Your task to perform on an android device: search for starred emails in the gmail app Image 0: 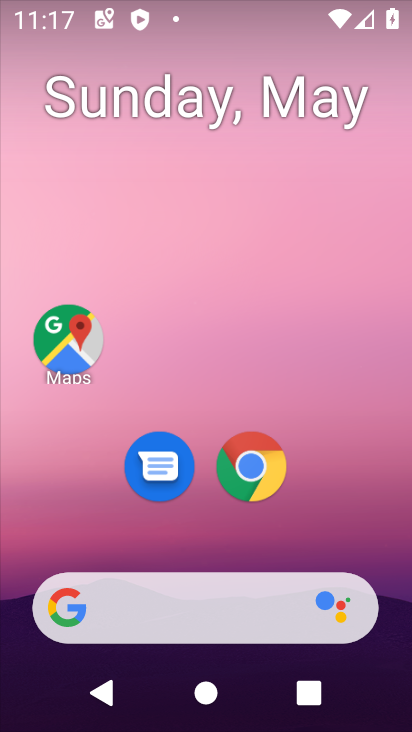
Step 0: drag from (390, 586) to (236, 39)
Your task to perform on an android device: search for starred emails in the gmail app Image 1: 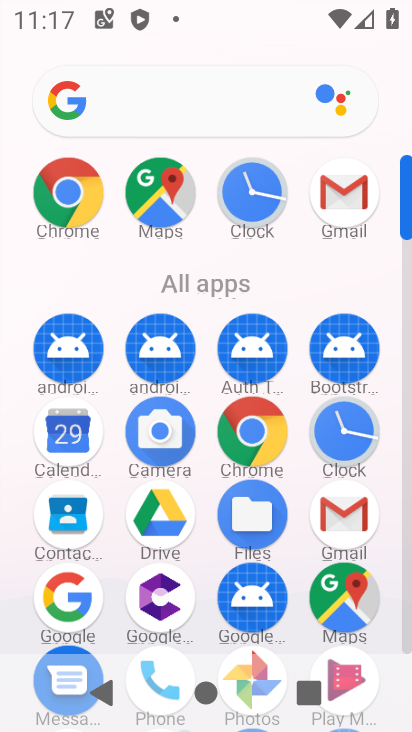
Step 1: click (350, 523)
Your task to perform on an android device: search for starred emails in the gmail app Image 2: 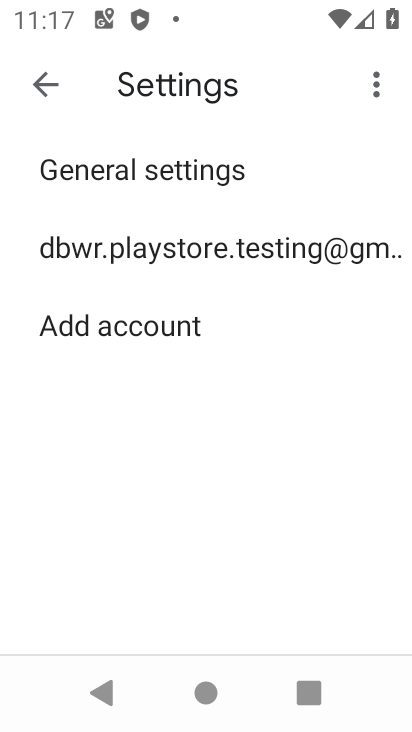
Step 2: press back button
Your task to perform on an android device: search for starred emails in the gmail app Image 3: 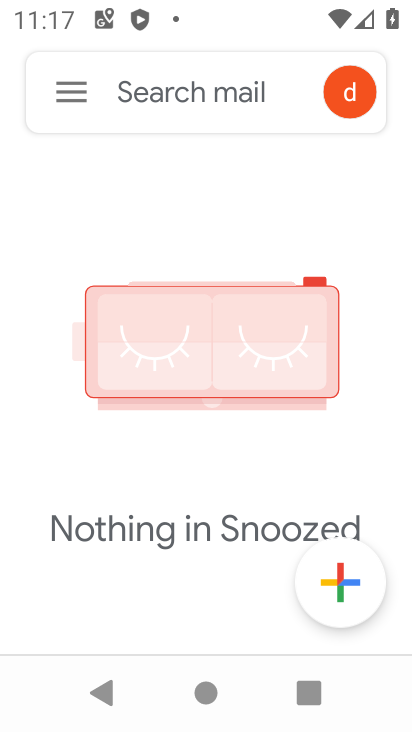
Step 3: click (60, 88)
Your task to perform on an android device: search for starred emails in the gmail app Image 4: 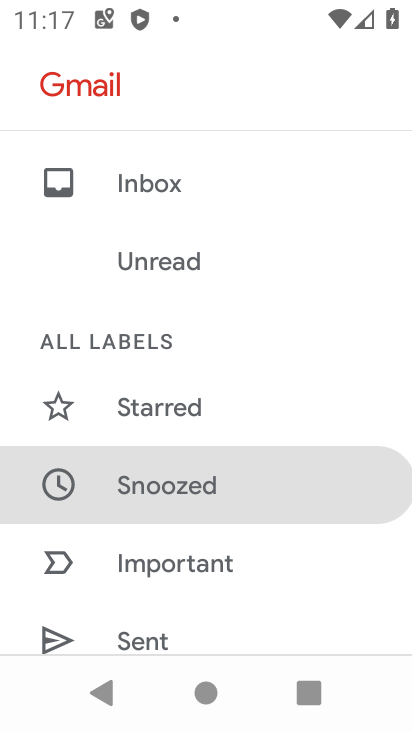
Step 4: click (203, 414)
Your task to perform on an android device: search for starred emails in the gmail app Image 5: 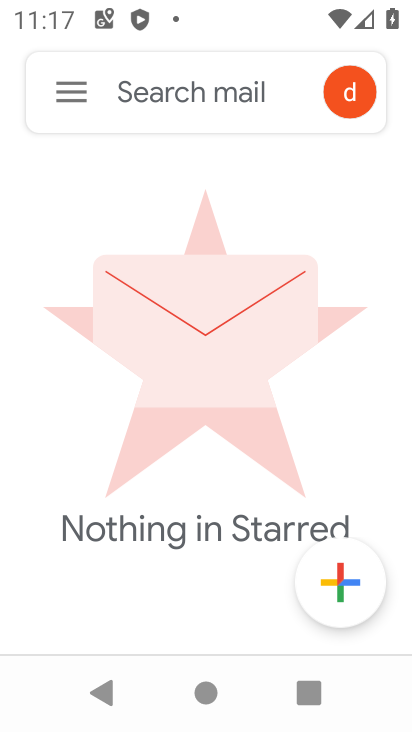
Step 5: task complete